Your task to perform on an android device: turn on the 24-hour format for clock Image 0: 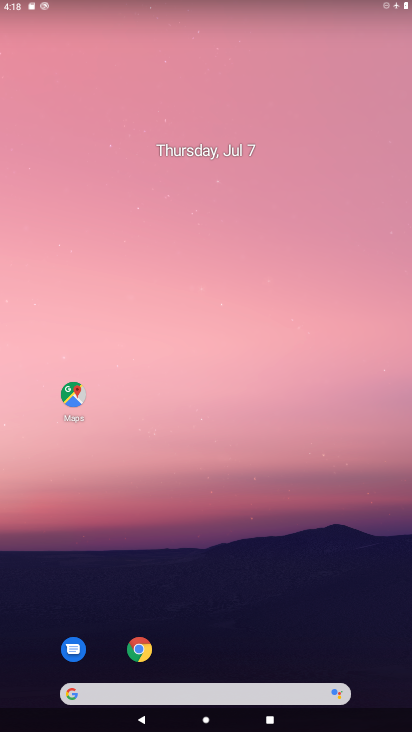
Step 0: drag from (373, 673) to (330, 133)
Your task to perform on an android device: turn on the 24-hour format for clock Image 1: 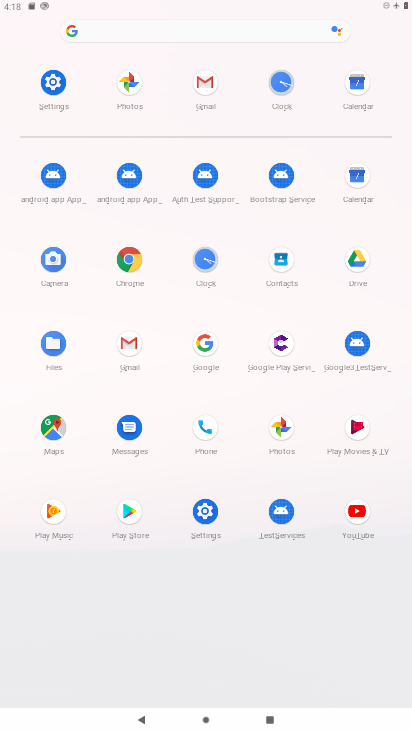
Step 1: click (204, 259)
Your task to perform on an android device: turn on the 24-hour format for clock Image 2: 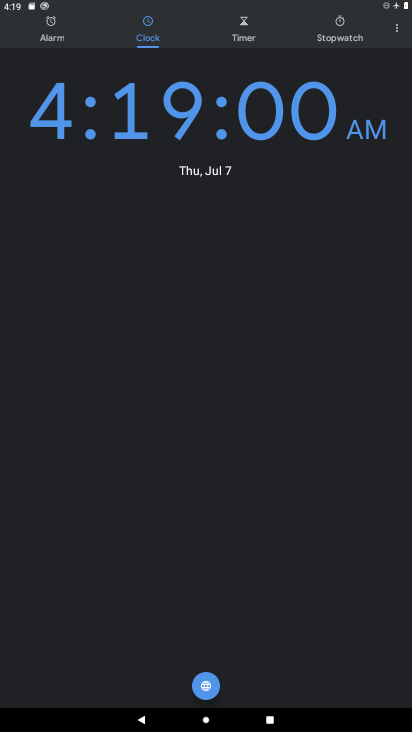
Step 2: click (398, 33)
Your task to perform on an android device: turn on the 24-hour format for clock Image 3: 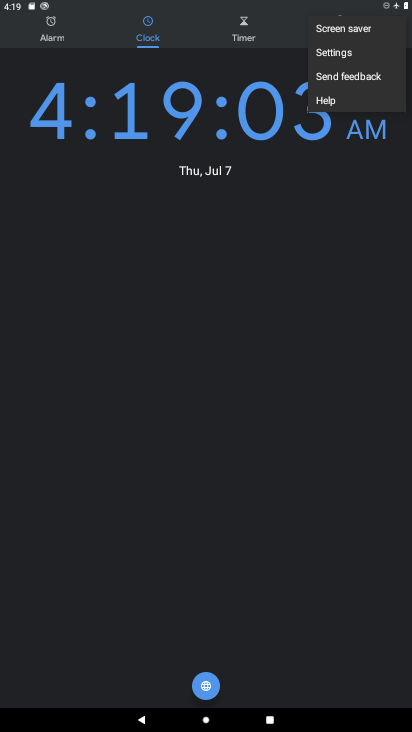
Step 3: click (335, 49)
Your task to perform on an android device: turn on the 24-hour format for clock Image 4: 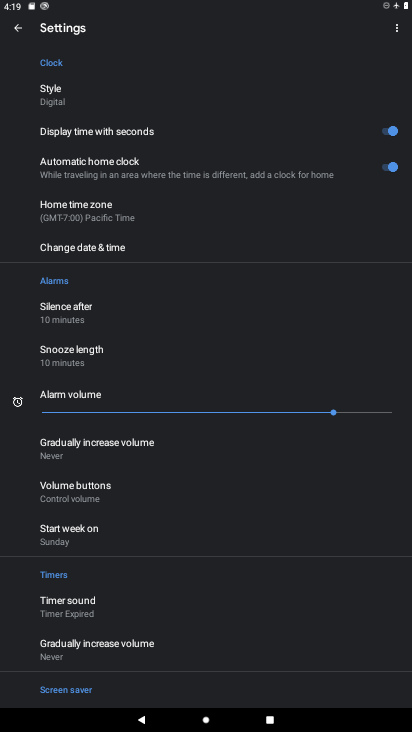
Step 4: click (96, 247)
Your task to perform on an android device: turn on the 24-hour format for clock Image 5: 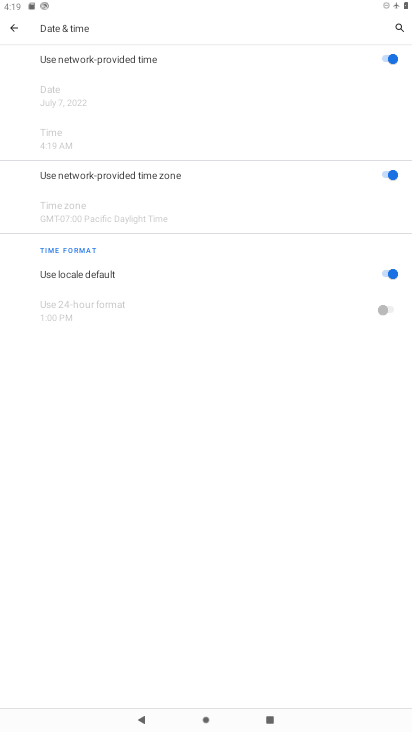
Step 5: click (384, 273)
Your task to perform on an android device: turn on the 24-hour format for clock Image 6: 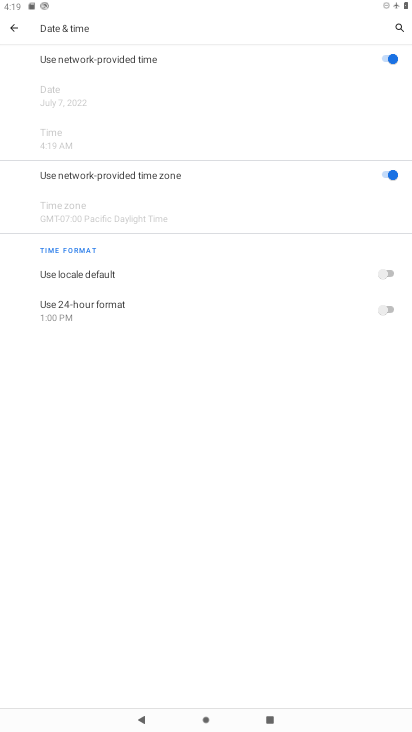
Step 6: click (388, 311)
Your task to perform on an android device: turn on the 24-hour format for clock Image 7: 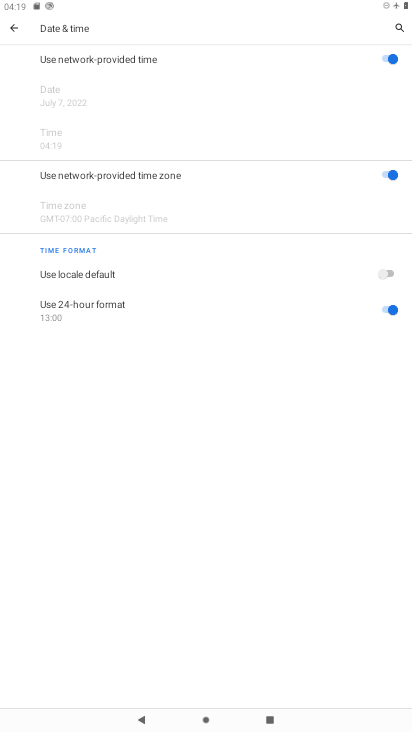
Step 7: task complete